Your task to perform on an android device: Go to Yahoo.com Image 0: 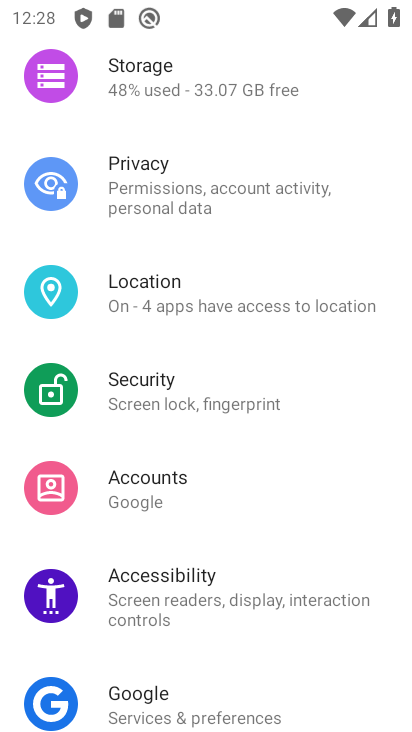
Step 0: press home button
Your task to perform on an android device: Go to Yahoo.com Image 1: 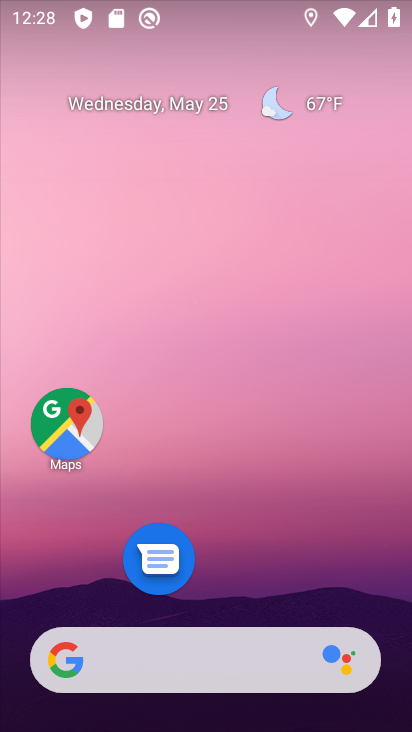
Step 1: click (190, 593)
Your task to perform on an android device: Go to Yahoo.com Image 2: 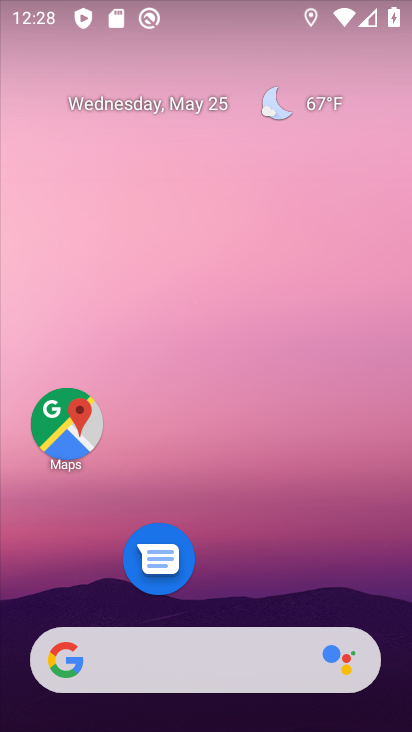
Step 2: drag from (190, 593) to (124, 2)
Your task to perform on an android device: Go to Yahoo.com Image 3: 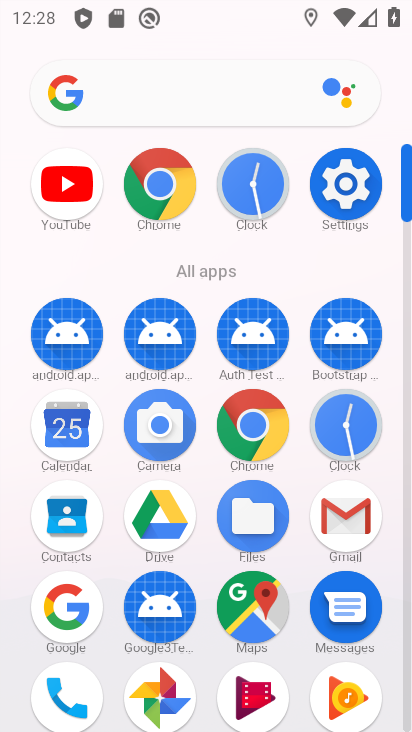
Step 3: click (181, 201)
Your task to perform on an android device: Go to Yahoo.com Image 4: 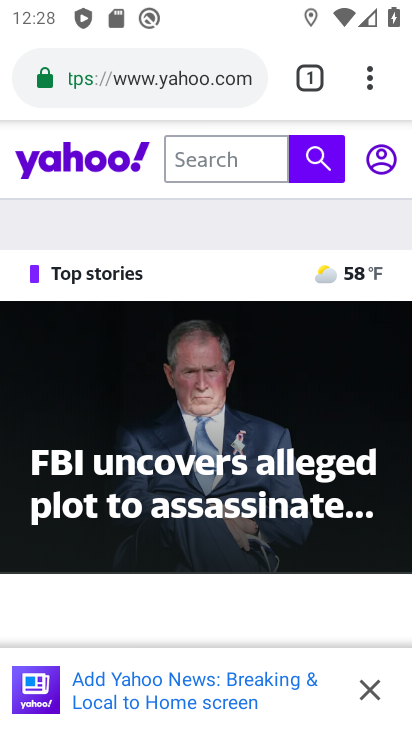
Step 4: task complete